Your task to perform on an android device: install app "Adobe Express: Graphic Design" Image 0: 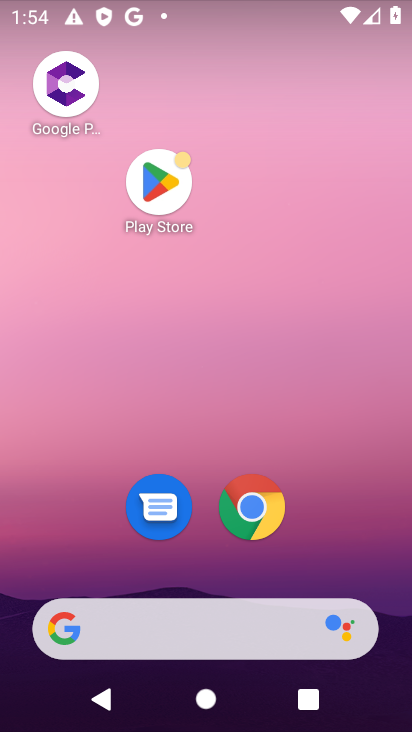
Step 0: click (176, 223)
Your task to perform on an android device: install app "Adobe Express: Graphic Design" Image 1: 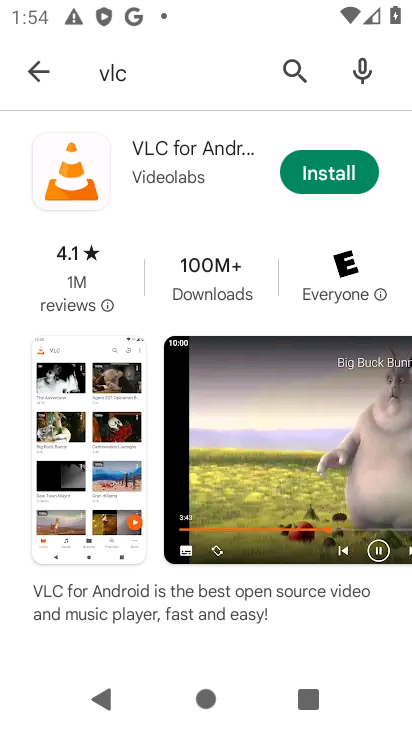
Step 1: click (278, 74)
Your task to perform on an android device: install app "Adobe Express: Graphic Design" Image 2: 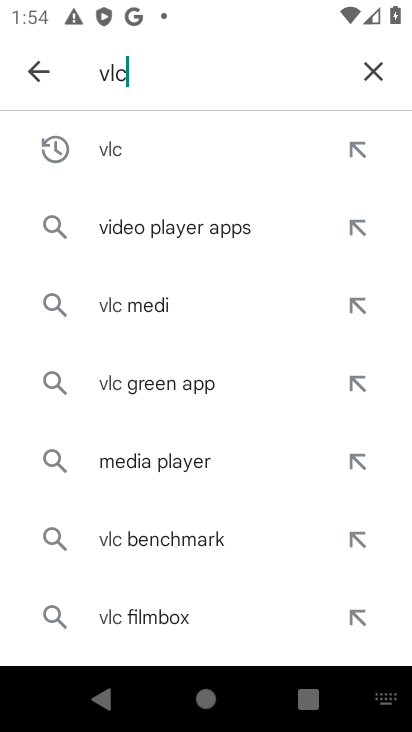
Step 2: click (368, 74)
Your task to perform on an android device: install app "Adobe Express: Graphic Design" Image 3: 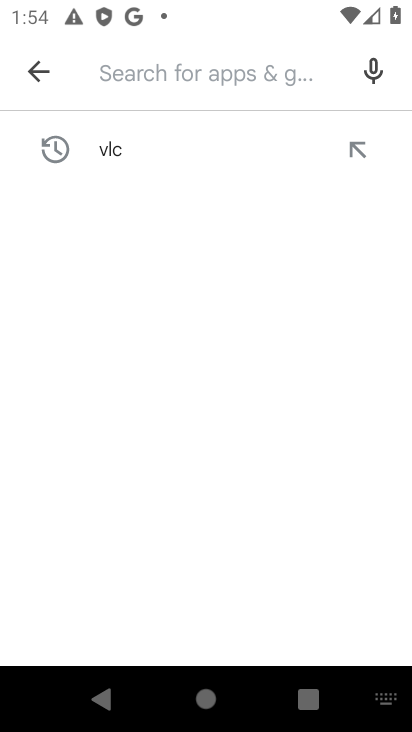
Step 3: type ""
Your task to perform on an android device: install app "Adobe Express: Graphic Design" Image 4: 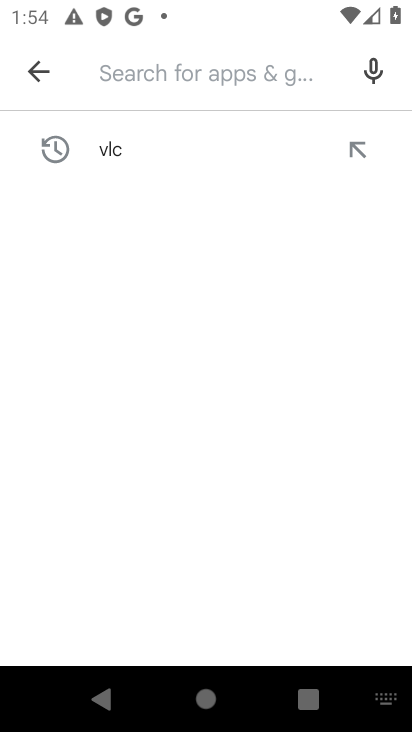
Step 4: type "adobe "
Your task to perform on an android device: install app "Adobe Express: Graphic Design" Image 5: 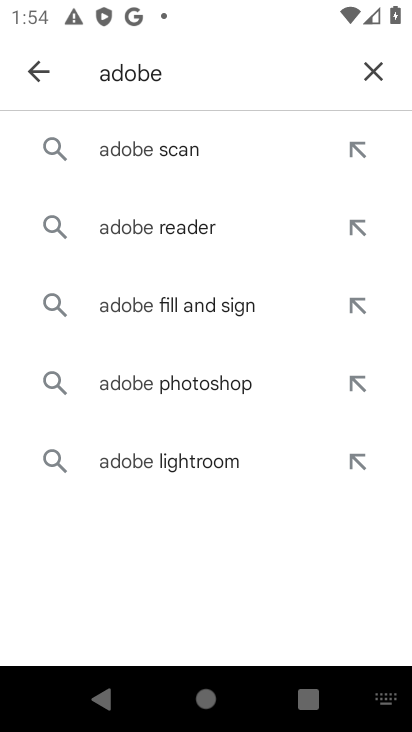
Step 5: click (152, 225)
Your task to perform on an android device: install app "Adobe Express: Graphic Design" Image 6: 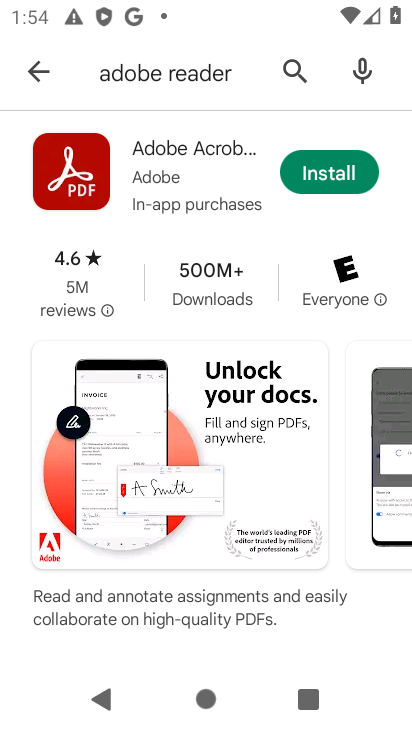
Step 6: click (317, 178)
Your task to perform on an android device: install app "Adobe Express: Graphic Design" Image 7: 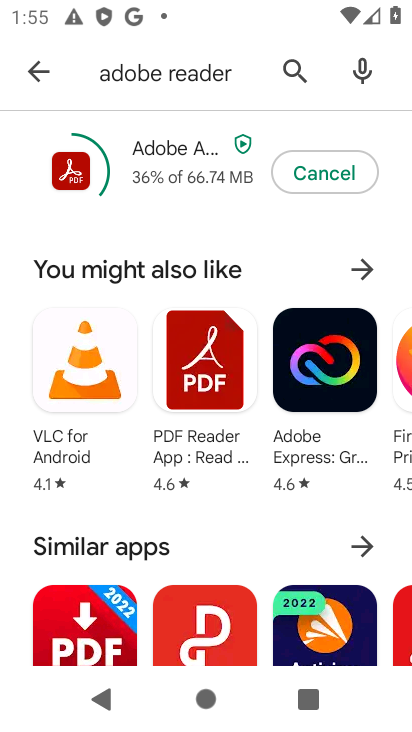
Step 7: task complete